Your task to perform on an android device: Open internet settings Image 0: 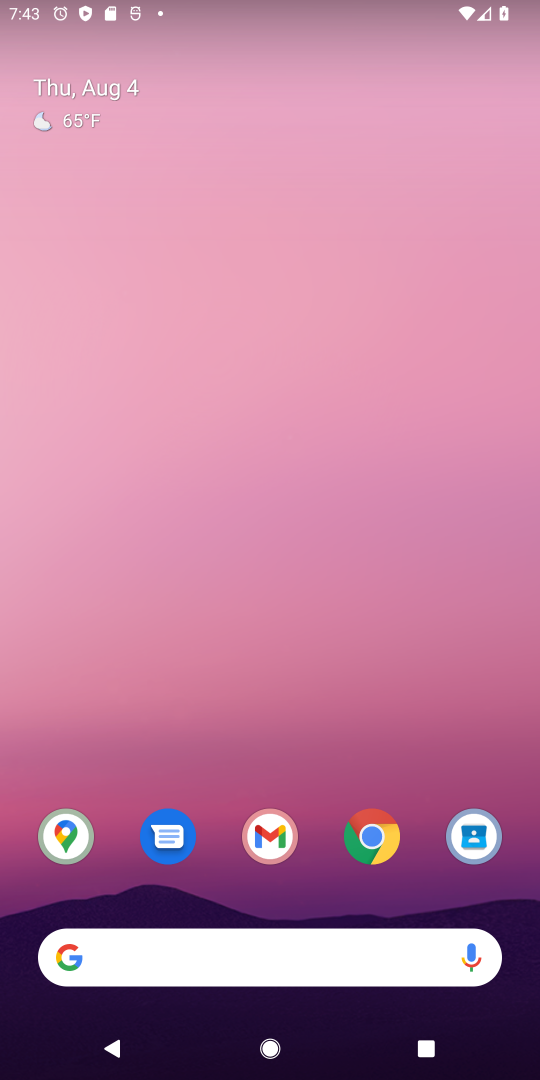
Step 0: drag from (194, 778) to (304, 18)
Your task to perform on an android device: Open internet settings Image 1: 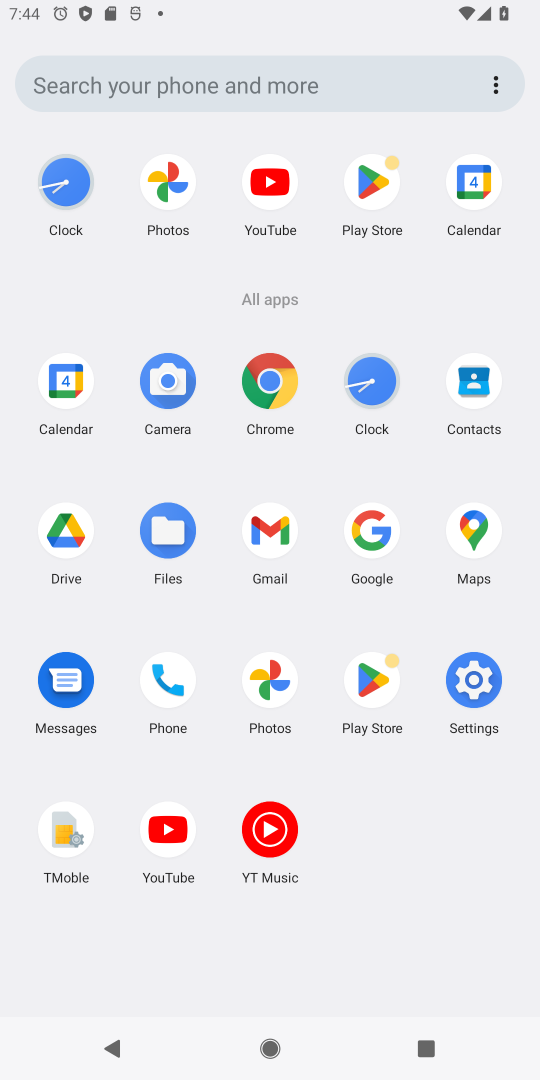
Step 1: click (485, 667)
Your task to perform on an android device: Open internet settings Image 2: 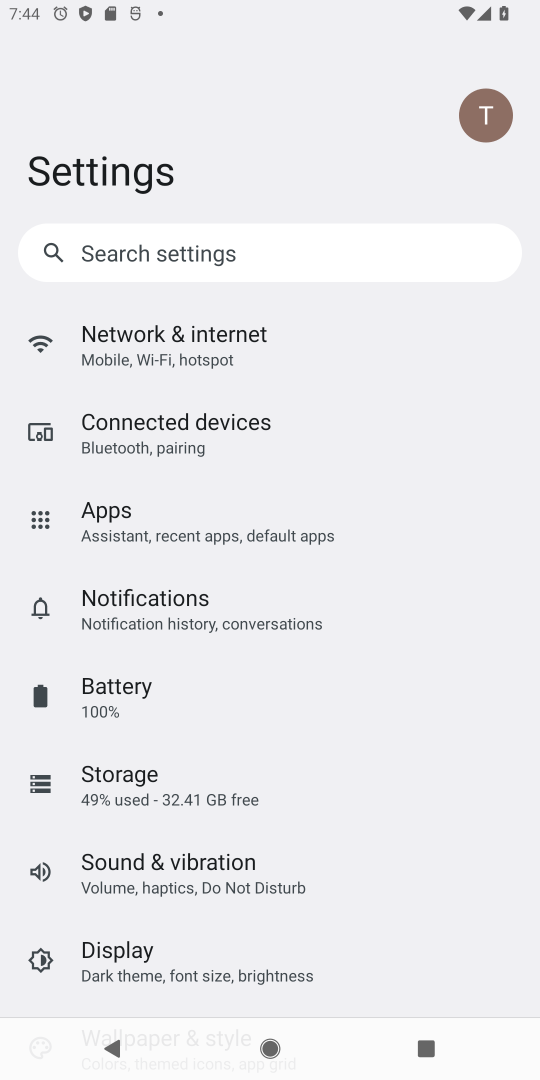
Step 2: click (221, 347)
Your task to perform on an android device: Open internet settings Image 3: 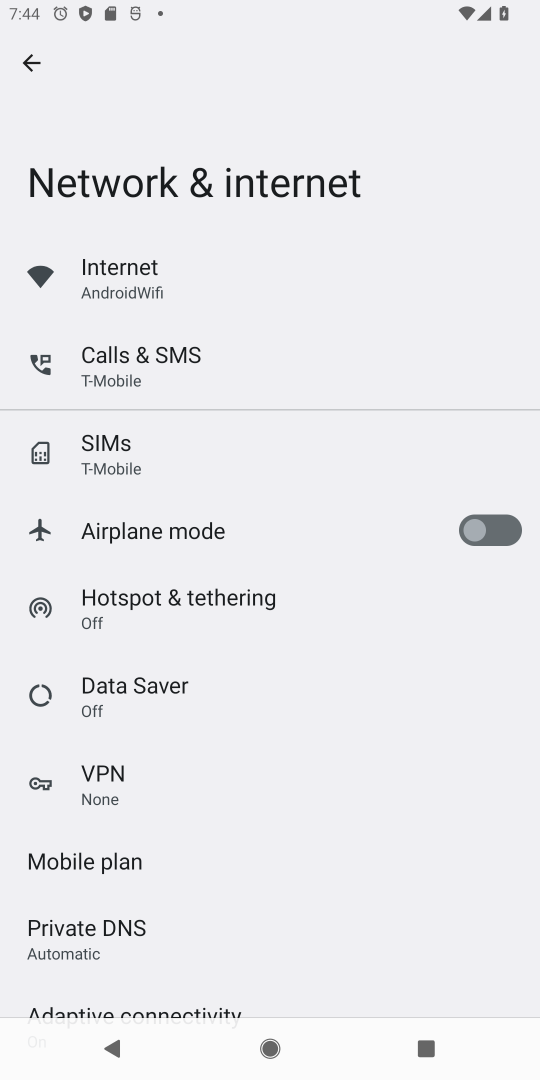
Step 3: task complete